Your task to perform on an android device: toggle location history Image 0: 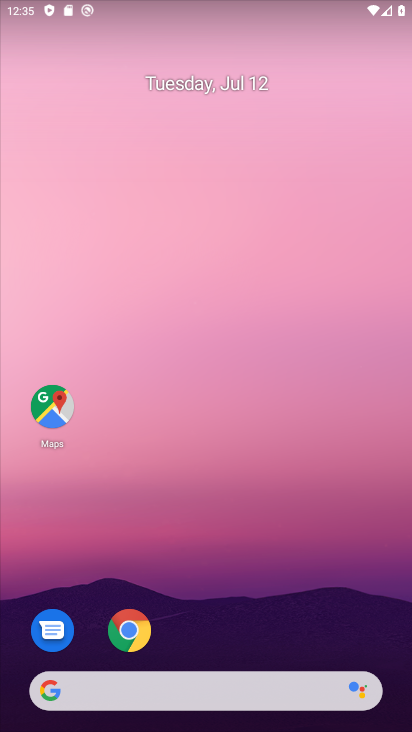
Step 0: click (54, 407)
Your task to perform on an android device: toggle location history Image 1: 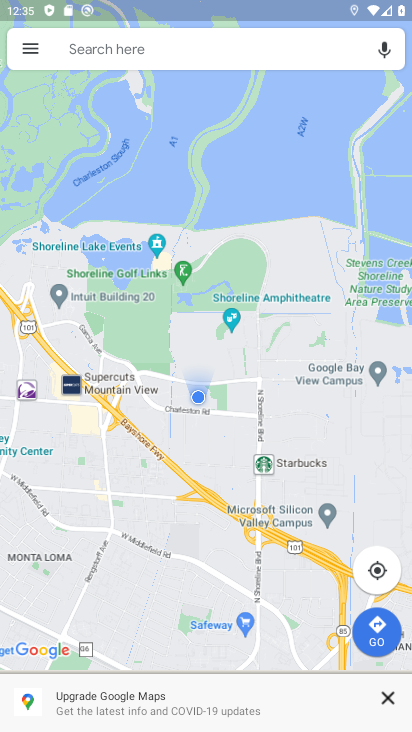
Step 1: click (22, 52)
Your task to perform on an android device: toggle location history Image 2: 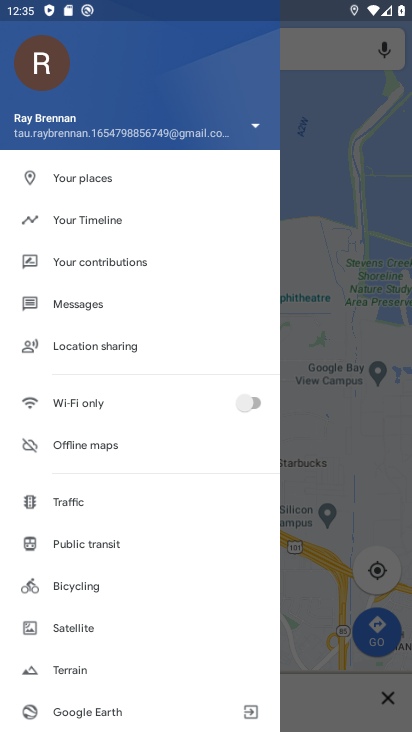
Step 2: drag from (160, 666) to (155, 316)
Your task to perform on an android device: toggle location history Image 3: 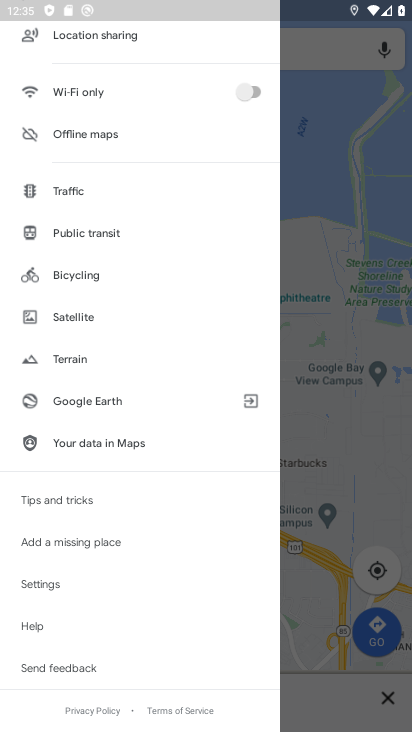
Step 3: click (48, 578)
Your task to perform on an android device: toggle location history Image 4: 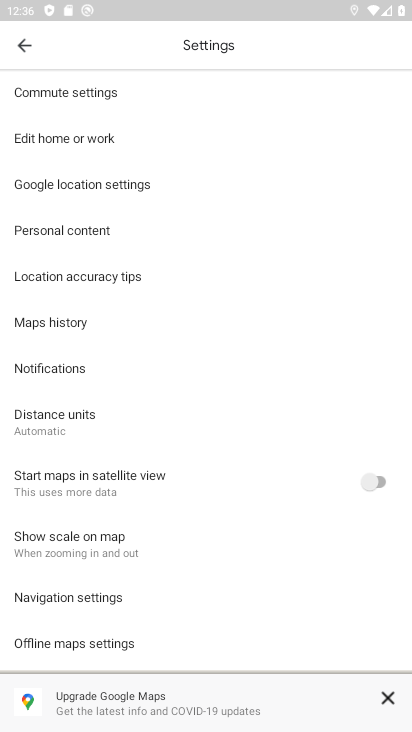
Step 4: click (65, 250)
Your task to perform on an android device: toggle location history Image 5: 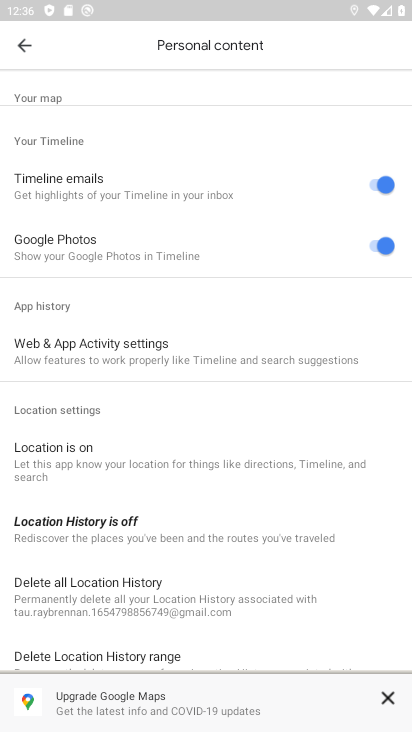
Step 5: click (74, 527)
Your task to perform on an android device: toggle location history Image 6: 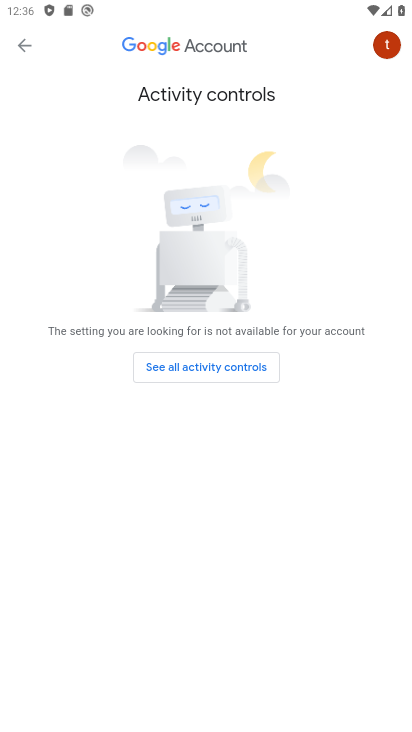
Step 6: click (205, 369)
Your task to perform on an android device: toggle location history Image 7: 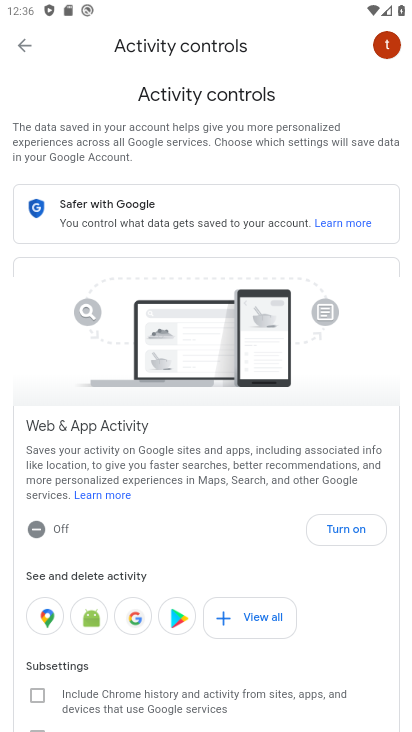
Step 7: click (347, 528)
Your task to perform on an android device: toggle location history Image 8: 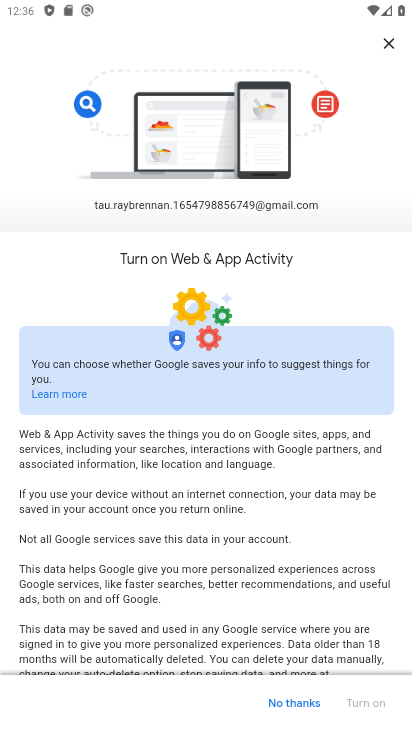
Step 8: drag from (324, 632) to (273, 123)
Your task to perform on an android device: toggle location history Image 9: 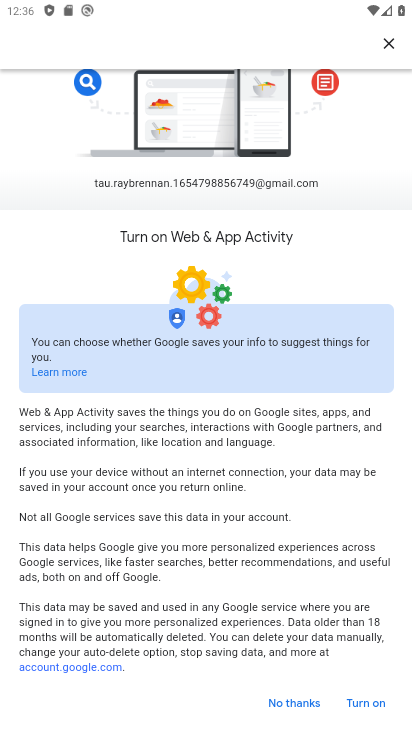
Step 9: click (358, 704)
Your task to perform on an android device: toggle location history Image 10: 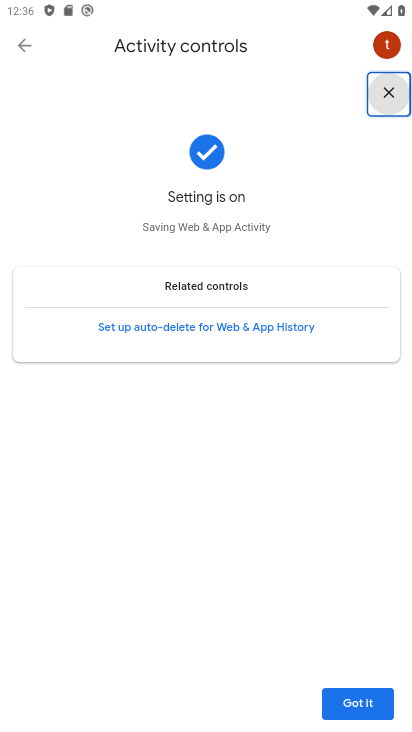
Step 10: click (352, 699)
Your task to perform on an android device: toggle location history Image 11: 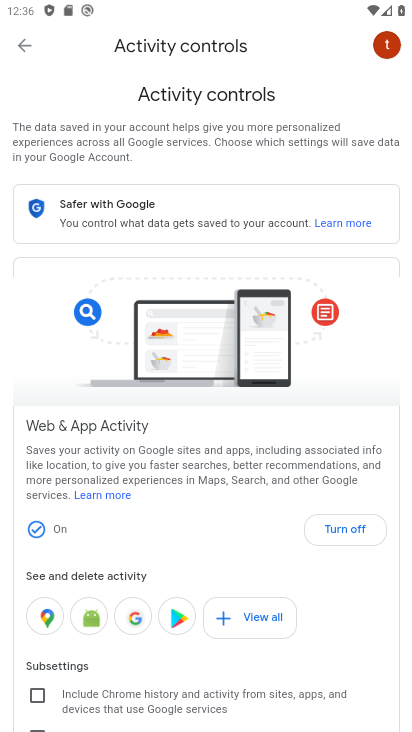
Step 11: task complete